Your task to perform on an android device: Go to sound settings Image 0: 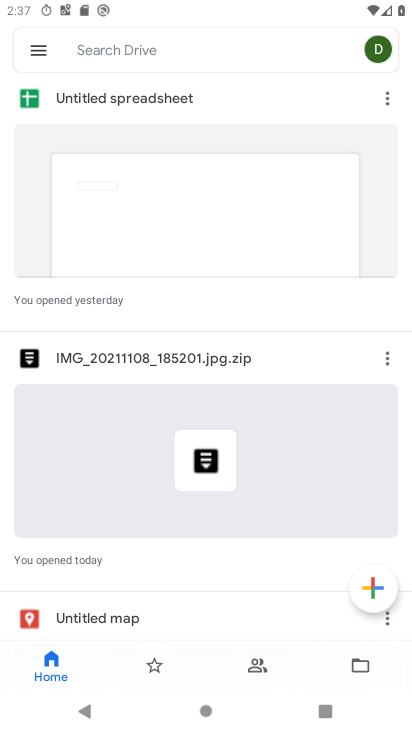
Step 0: press home button
Your task to perform on an android device: Go to sound settings Image 1: 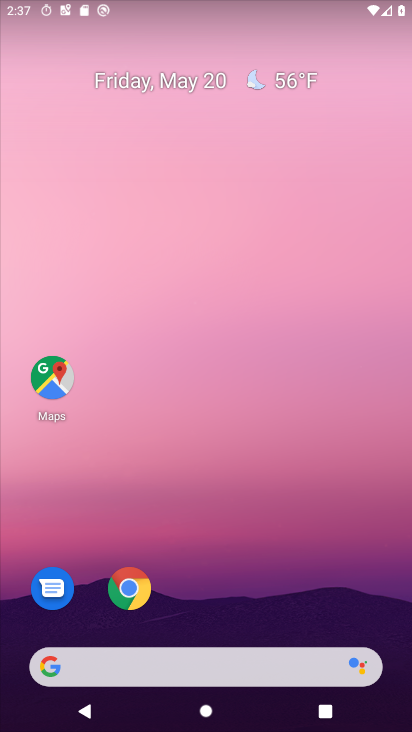
Step 1: drag from (18, 730) to (197, 183)
Your task to perform on an android device: Go to sound settings Image 2: 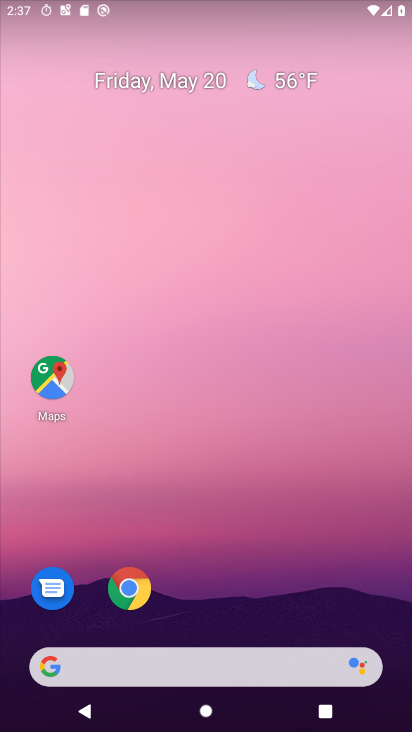
Step 2: drag from (29, 598) to (263, 166)
Your task to perform on an android device: Go to sound settings Image 3: 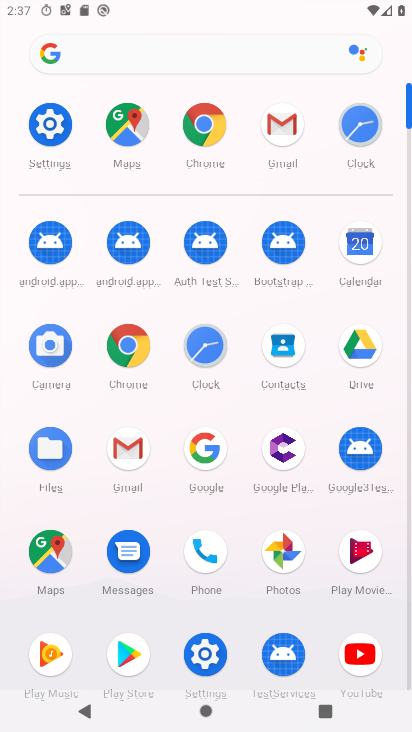
Step 3: click (40, 121)
Your task to perform on an android device: Go to sound settings Image 4: 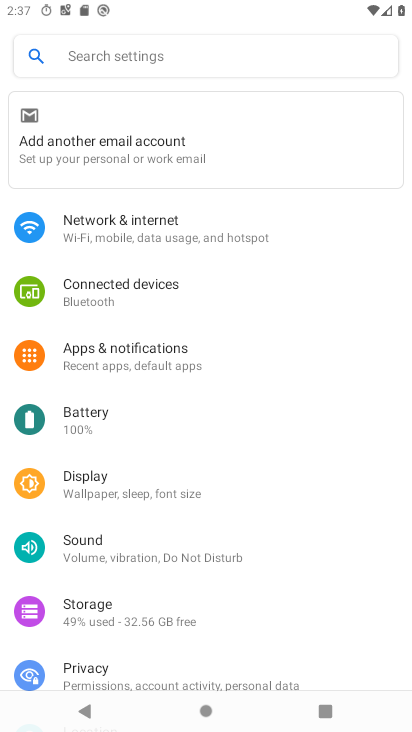
Step 4: click (97, 530)
Your task to perform on an android device: Go to sound settings Image 5: 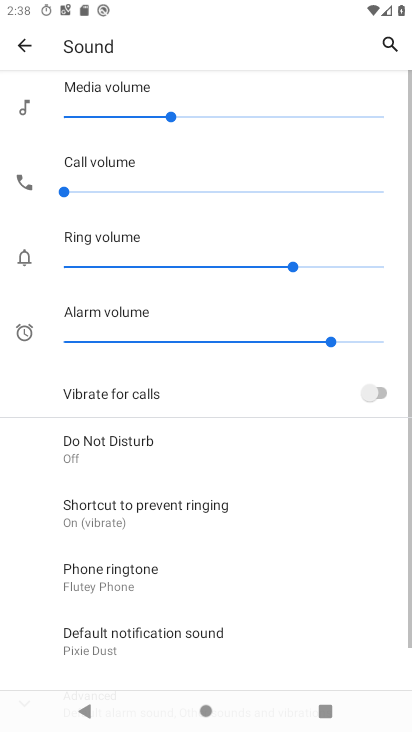
Step 5: task complete